Your task to perform on an android device: Open Youtube and go to the subscriptions tab Image 0: 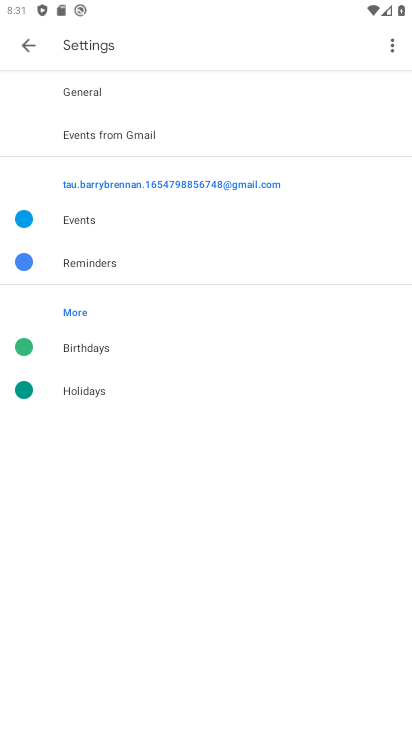
Step 0: press home button
Your task to perform on an android device: Open Youtube and go to the subscriptions tab Image 1: 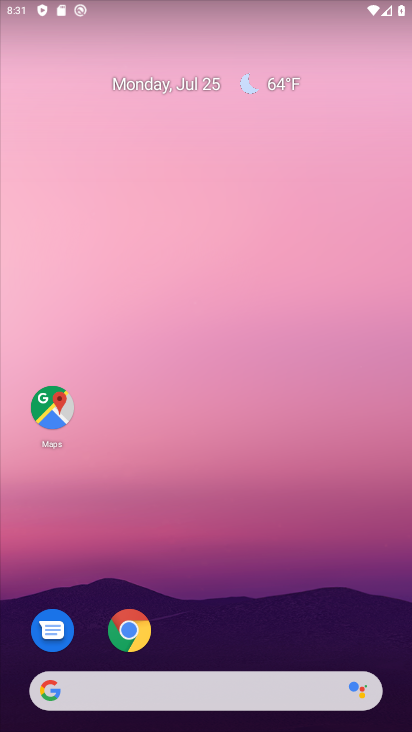
Step 1: drag from (391, 646) to (317, 160)
Your task to perform on an android device: Open Youtube and go to the subscriptions tab Image 2: 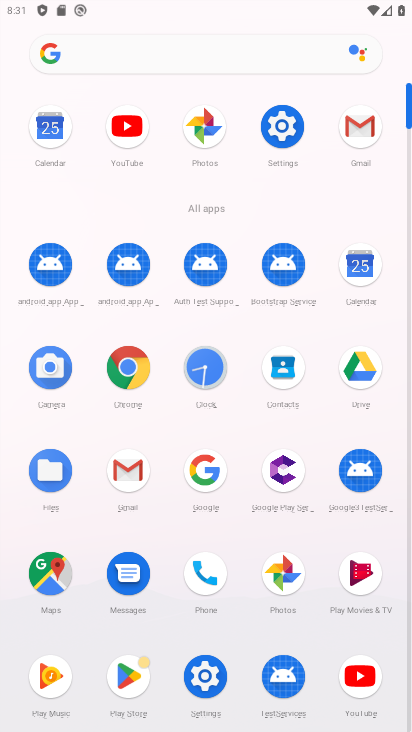
Step 2: click (361, 672)
Your task to perform on an android device: Open Youtube and go to the subscriptions tab Image 3: 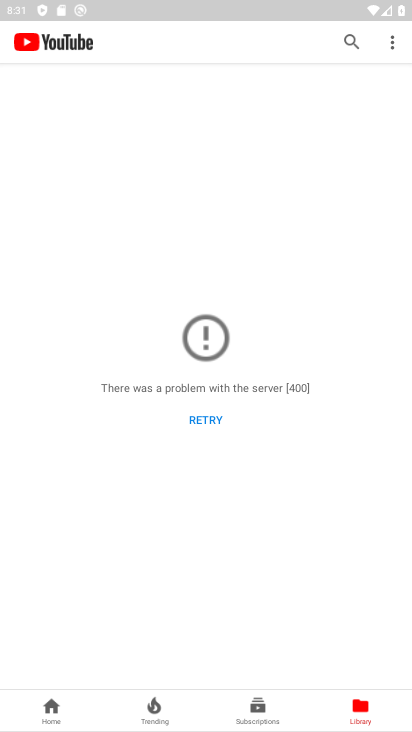
Step 3: click (261, 710)
Your task to perform on an android device: Open Youtube and go to the subscriptions tab Image 4: 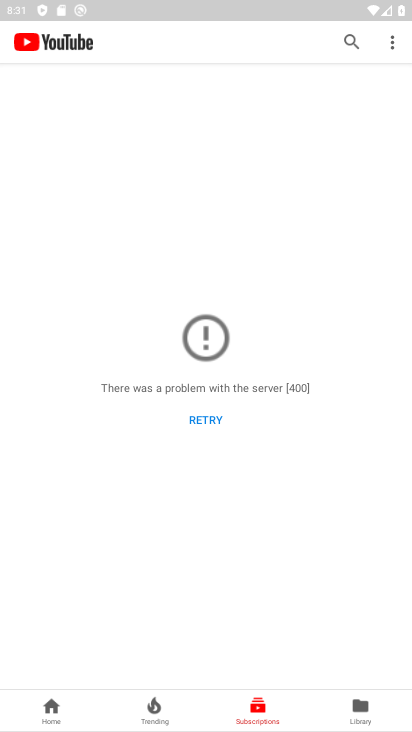
Step 4: task complete